Your task to perform on an android device: Go to CNN.com Image 0: 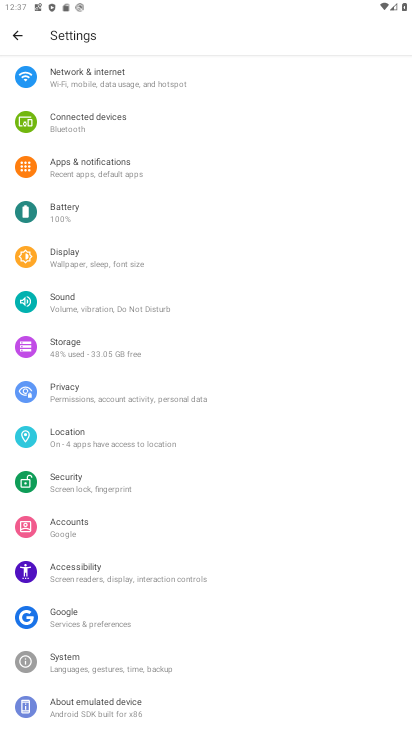
Step 0: press home button
Your task to perform on an android device: Go to CNN.com Image 1: 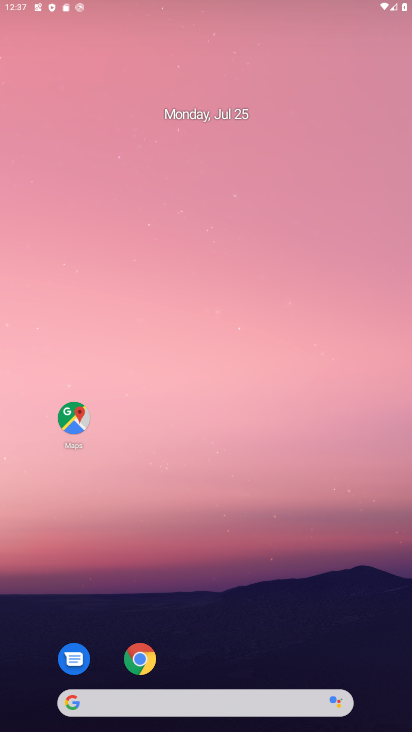
Step 1: drag from (286, 656) to (3, 315)
Your task to perform on an android device: Go to CNN.com Image 2: 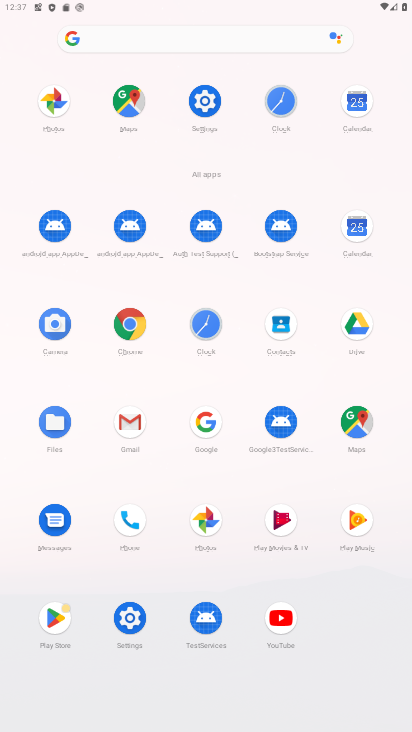
Step 2: click (142, 334)
Your task to perform on an android device: Go to CNN.com Image 3: 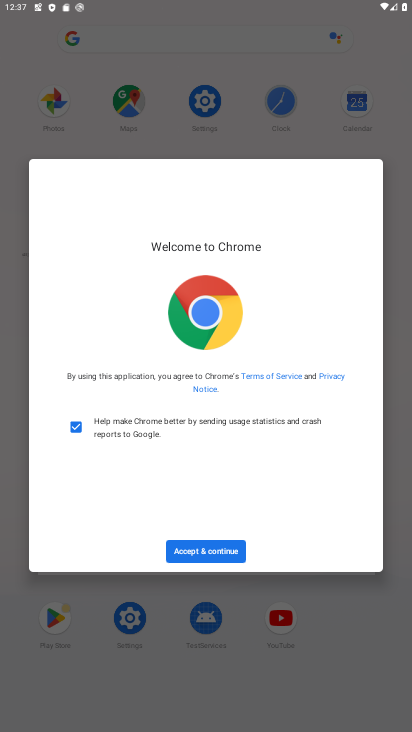
Step 3: click (201, 556)
Your task to perform on an android device: Go to CNN.com Image 4: 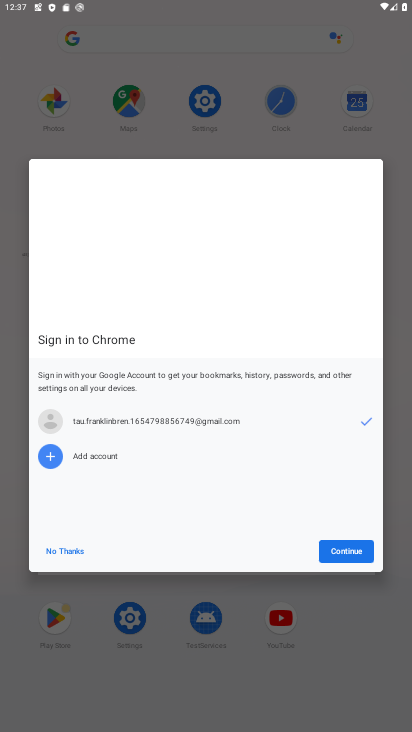
Step 4: click (69, 541)
Your task to perform on an android device: Go to CNN.com Image 5: 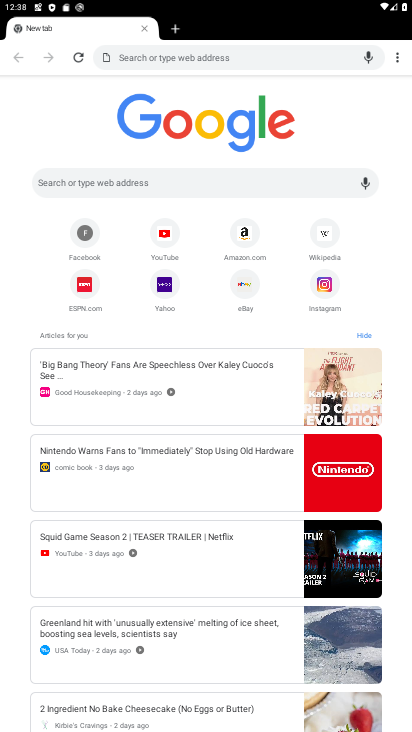
Step 5: click (121, 171)
Your task to perform on an android device: Go to CNN.com Image 6: 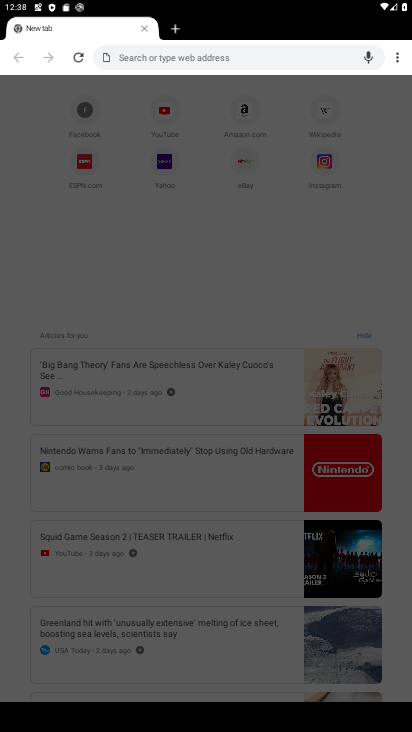
Step 6: type "cnn.com"
Your task to perform on an android device: Go to CNN.com Image 7: 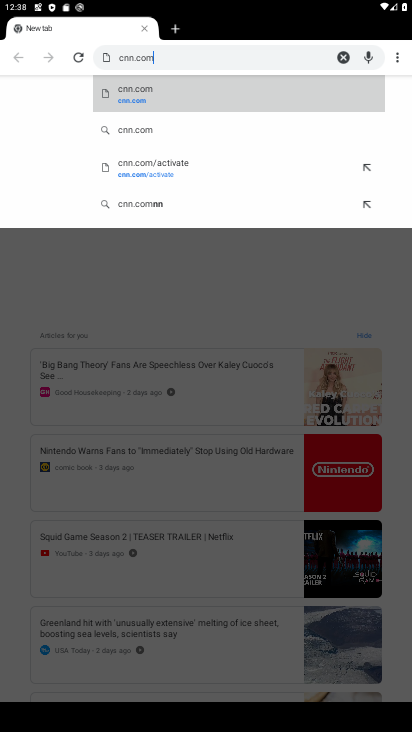
Step 7: click (168, 101)
Your task to perform on an android device: Go to CNN.com Image 8: 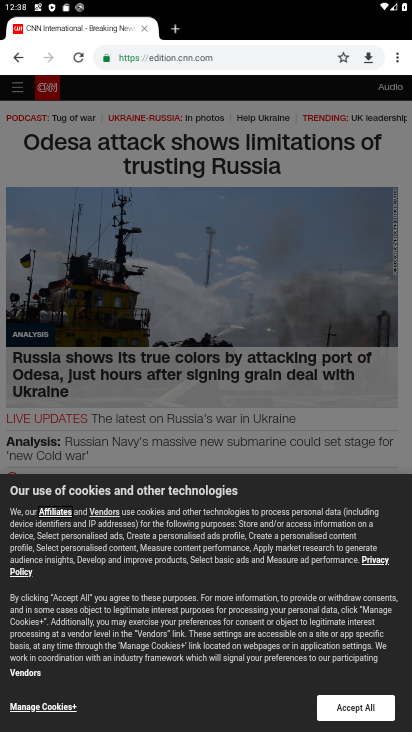
Step 8: task complete